Your task to perform on an android device: open wifi settings Image 0: 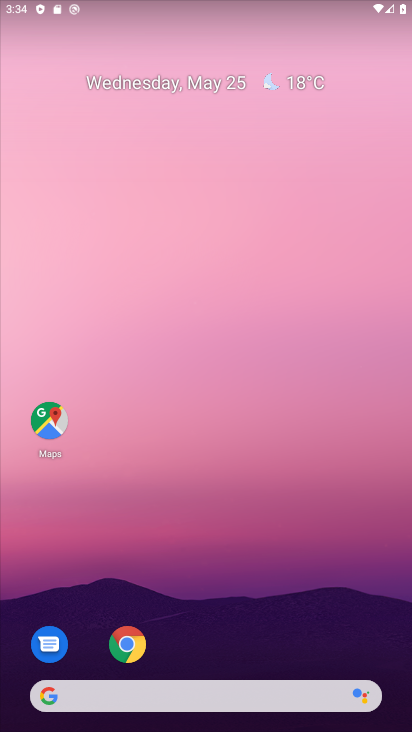
Step 0: drag from (252, 617) to (168, 96)
Your task to perform on an android device: open wifi settings Image 1: 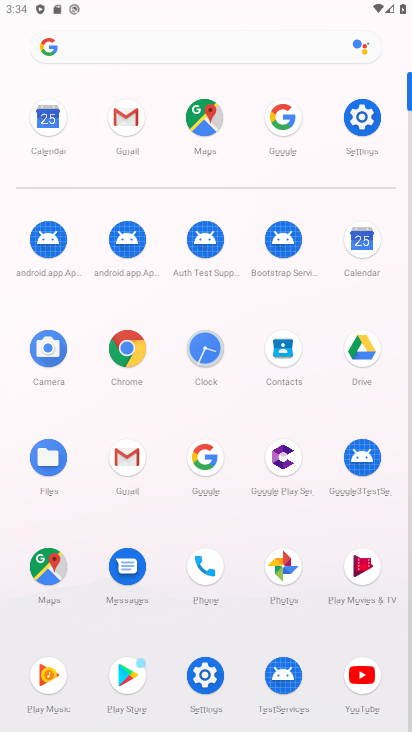
Step 1: click (361, 116)
Your task to perform on an android device: open wifi settings Image 2: 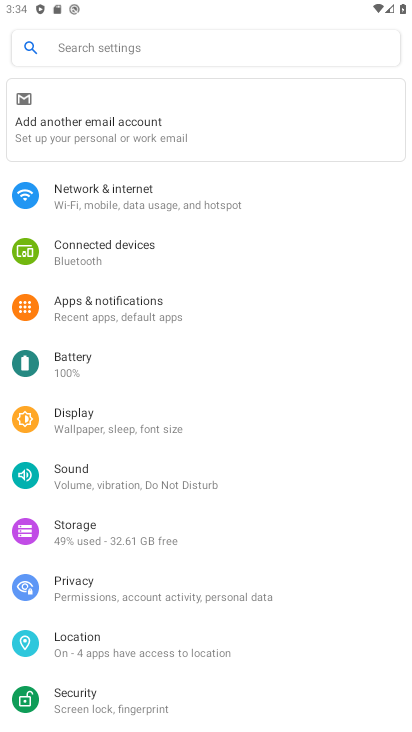
Step 2: click (107, 195)
Your task to perform on an android device: open wifi settings Image 3: 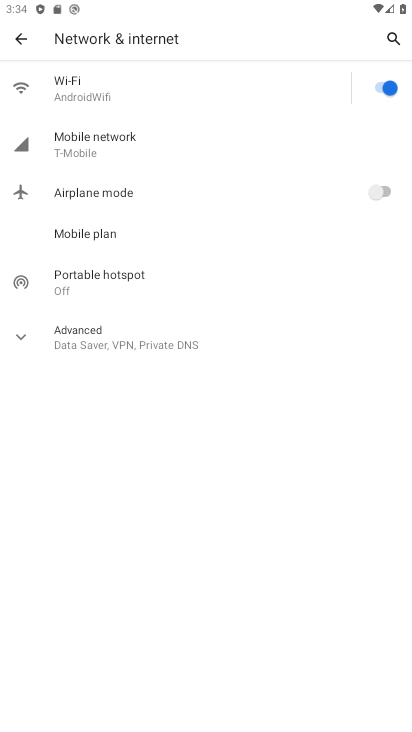
Step 3: click (80, 92)
Your task to perform on an android device: open wifi settings Image 4: 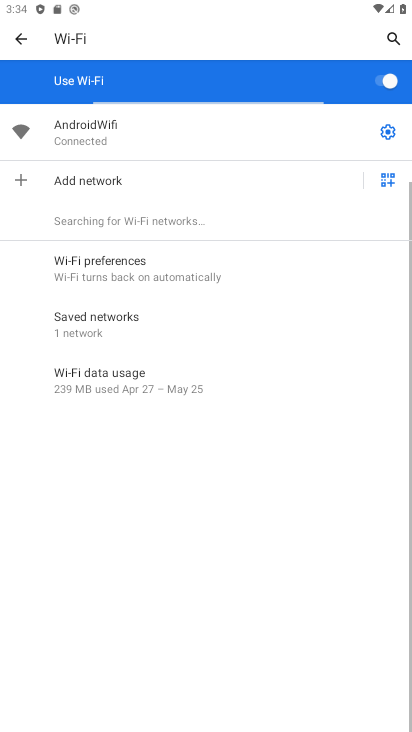
Step 4: click (389, 134)
Your task to perform on an android device: open wifi settings Image 5: 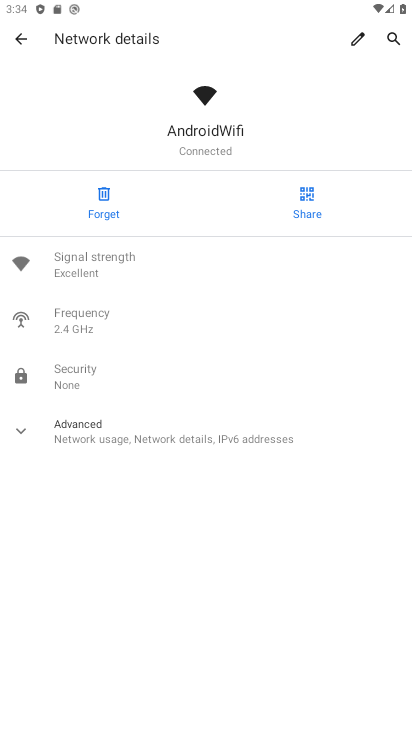
Step 5: task complete